Your task to perform on an android device: Open Google Chrome Image 0: 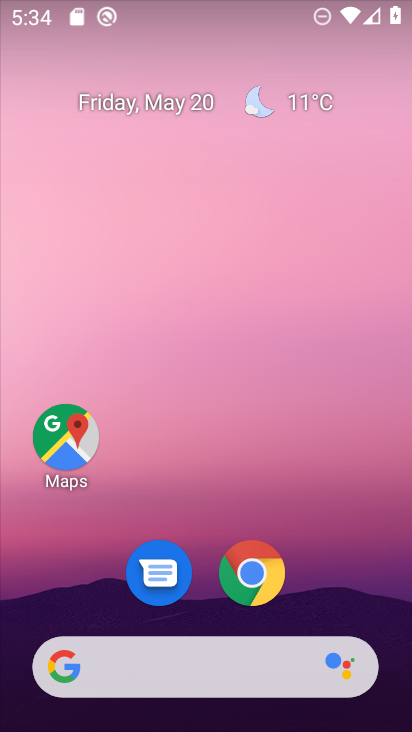
Step 0: click (261, 580)
Your task to perform on an android device: Open Google Chrome Image 1: 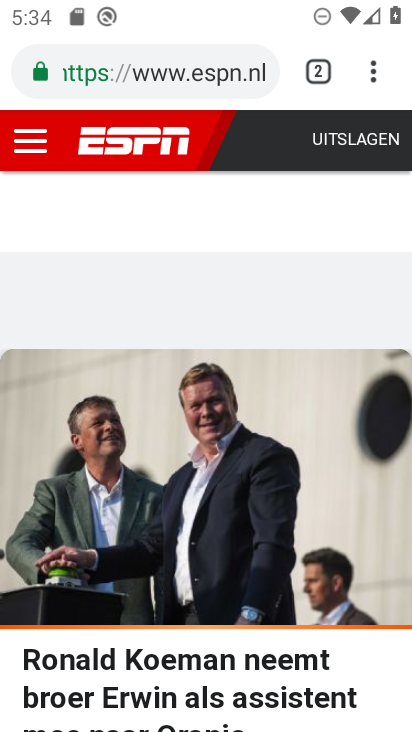
Step 1: task complete